Your task to perform on an android device: Open Maps and search for coffee Image 0: 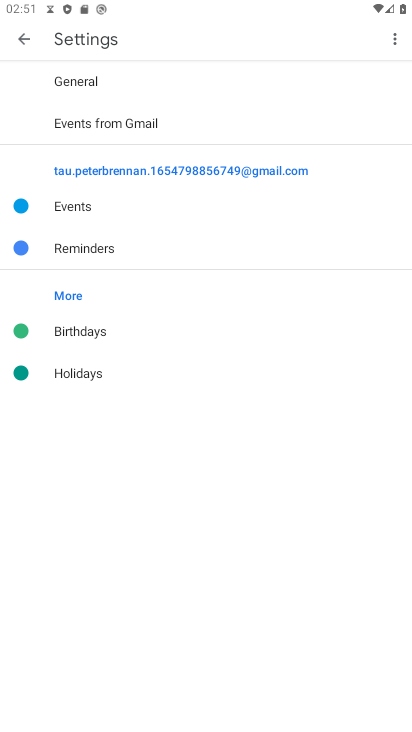
Step 0: click (17, 32)
Your task to perform on an android device: Open Maps and search for coffee Image 1: 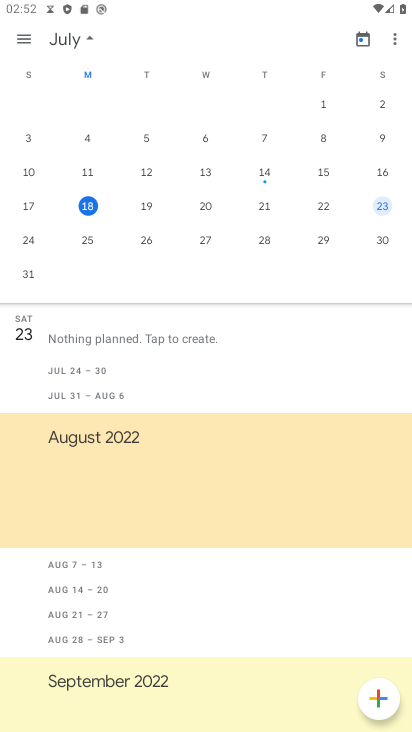
Step 1: press home button
Your task to perform on an android device: Open Maps and search for coffee Image 2: 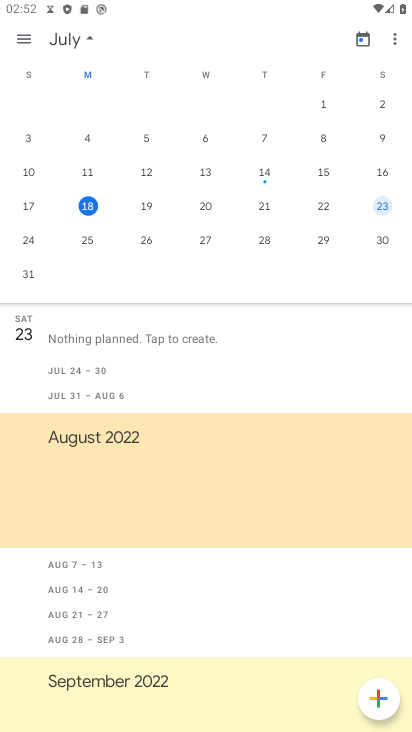
Step 2: press home button
Your task to perform on an android device: Open Maps and search for coffee Image 3: 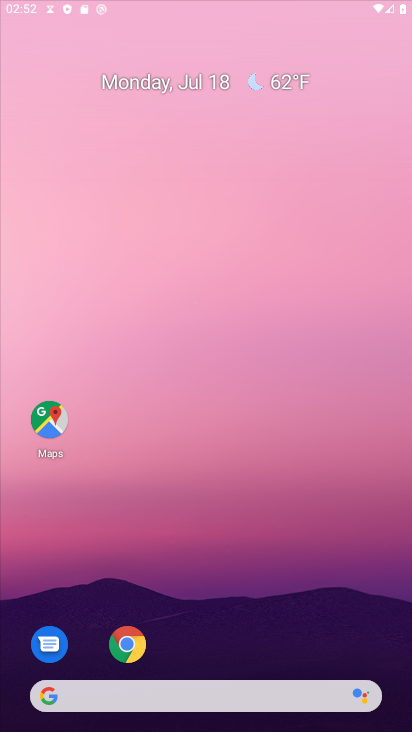
Step 3: press home button
Your task to perform on an android device: Open Maps and search for coffee Image 4: 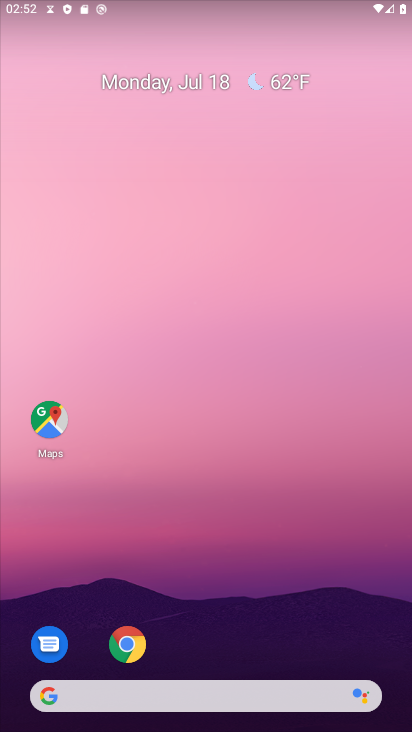
Step 4: press back button
Your task to perform on an android device: Open Maps and search for coffee Image 5: 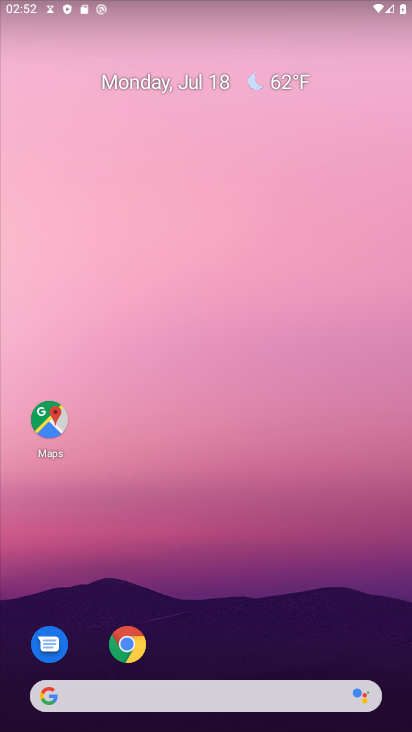
Step 5: drag from (236, 473) to (202, 138)
Your task to perform on an android device: Open Maps and search for coffee Image 6: 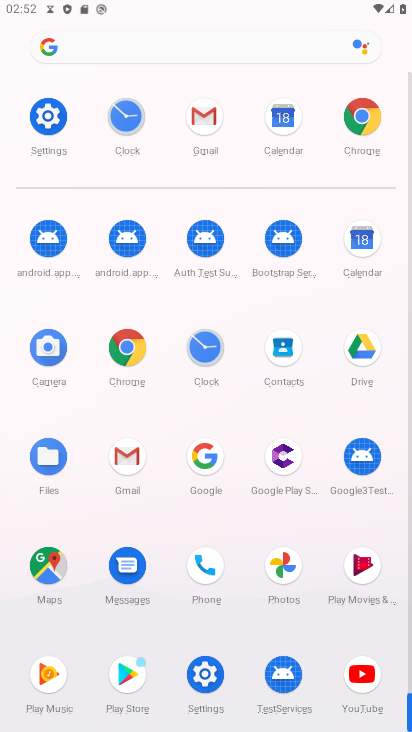
Step 6: click (34, 565)
Your task to perform on an android device: Open Maps and search for coffee Image 7: 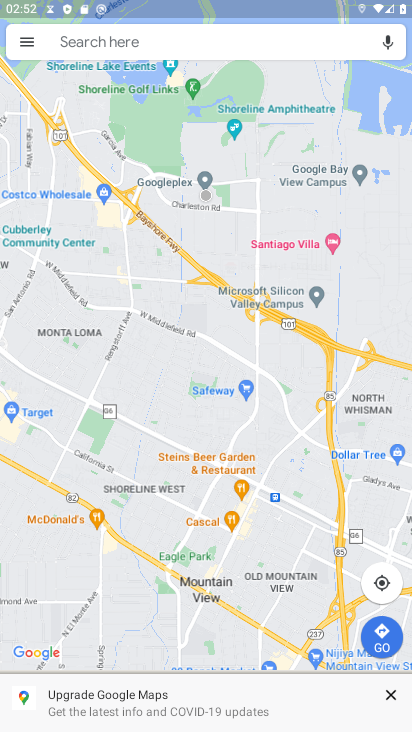
Step 7: click (134, 38)
Your task to perform on an android device: Open Maps and search for coffee Image 8: 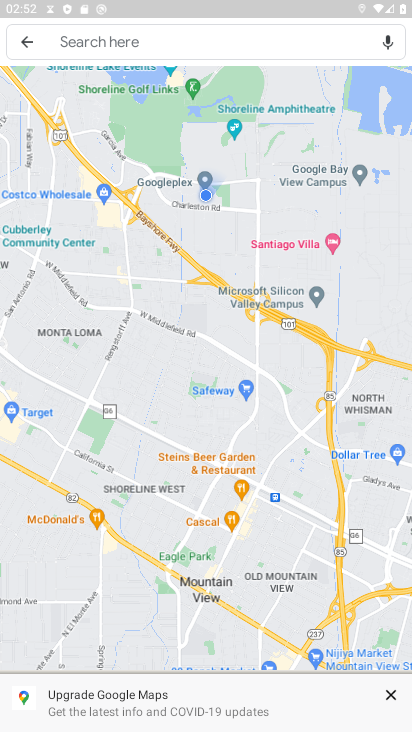
Step 8: click (133, 40)
Your task to perform on an android device: Open Maps and search for coffee Image 9: 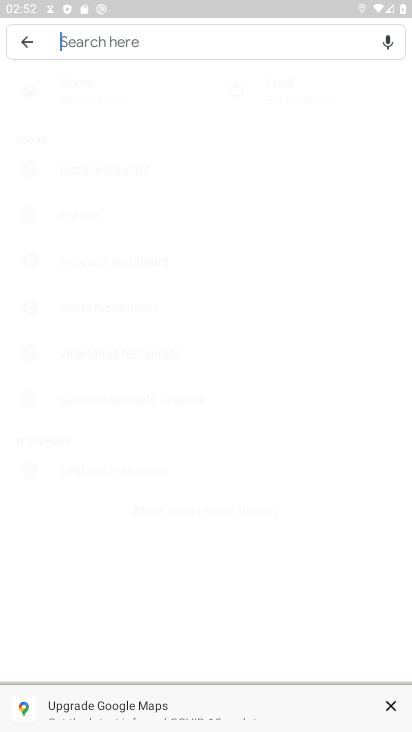
Step 9: click (133, 40)
Your task to perform on an android device: Open Maps and search for coffee Image 10: 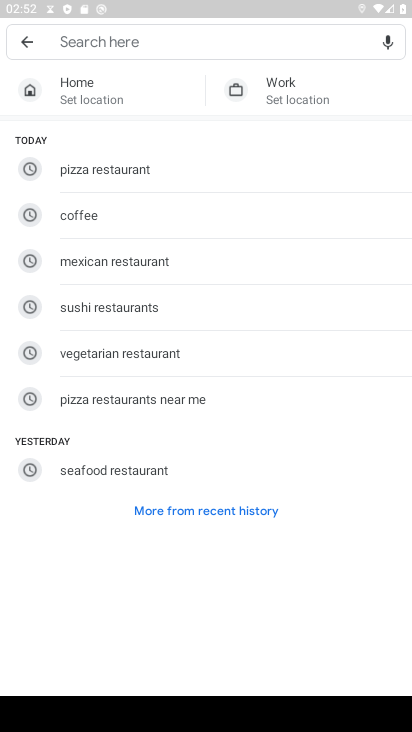
Step 10: click (93, 223)
Your task to perform on an android device: Open Maps and search for coffee Image 11: 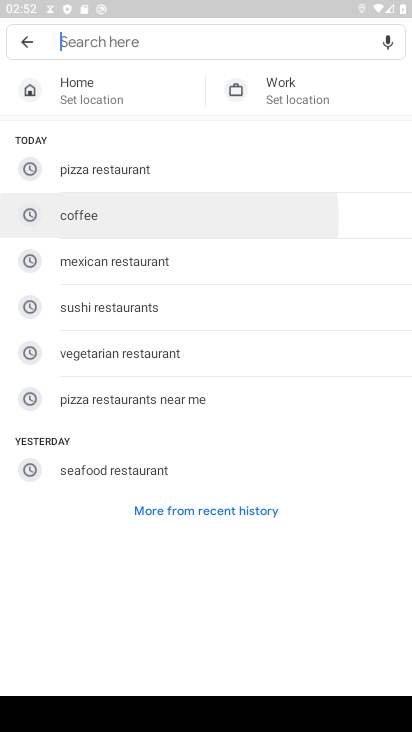
Step 11: click (106, 205)
Your task to perform on an android device: Open Maps and search for coffee Image 12: 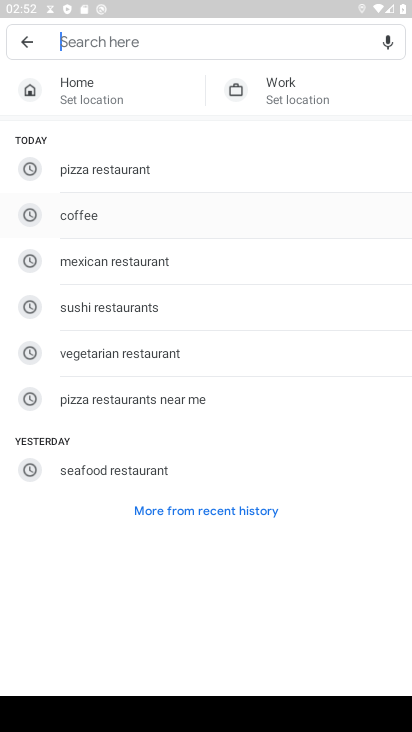
Step 12: click (106, 205)
Your task to perform on an android device: Open Maps and search for coffee Image 13: 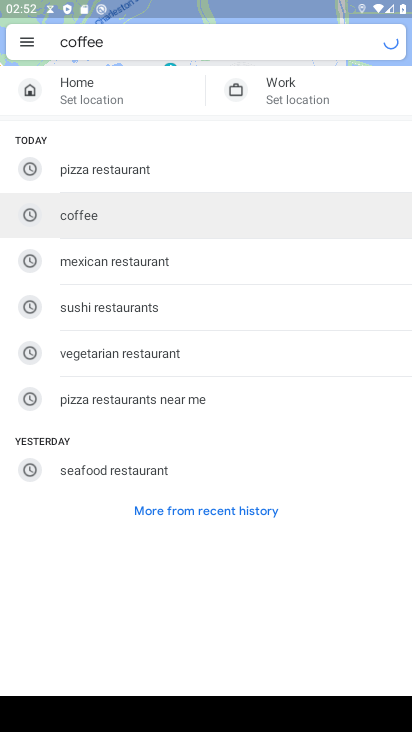
Step 13: click (106, 205)
Your task to perform on an android device: Open Maps and search for coffee Image 14: 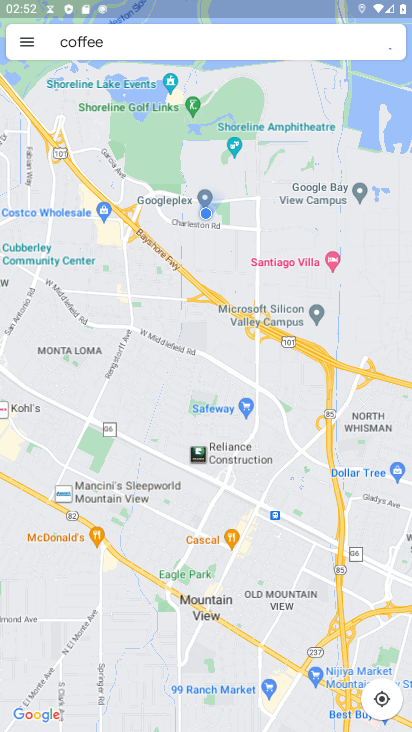
Step 14: task complete